Your task to perform on an android device: Show me productivity apps on the Play Store Image 0: 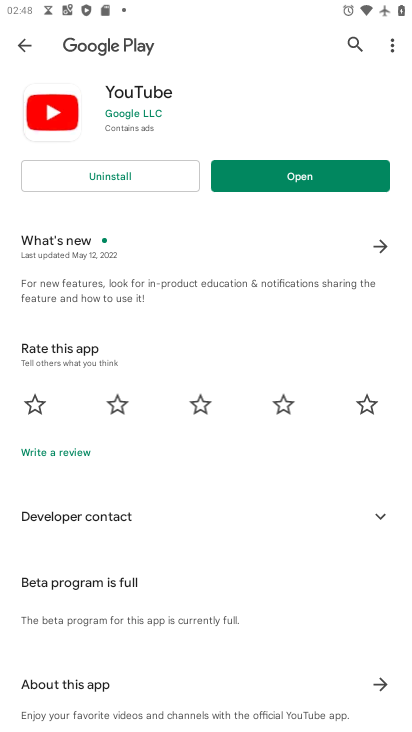
Step 0: press home button
Your task to perform on an android device: Show me productivity apps on the Play Store Image 1: 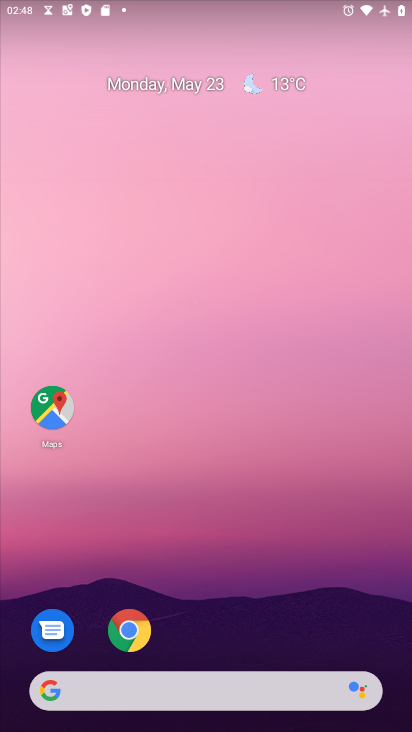
Step 1: drag from (297, 595) to (157, 41)
Your task to perform on an android device: Show me productivity apps on the Play Store Image 2: 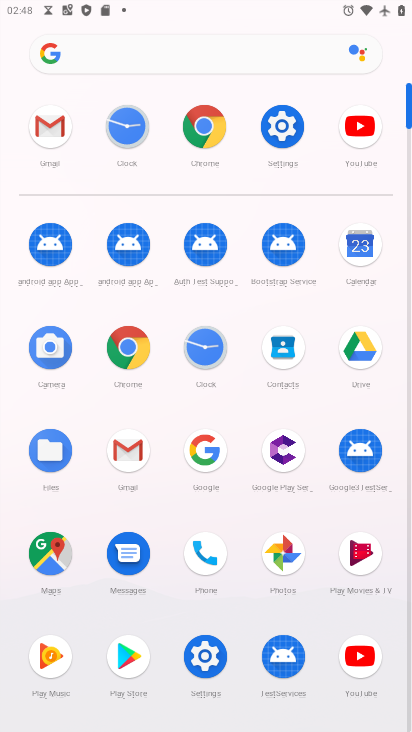
Step 2: click (128, 647)
Your task to perform on an android device: Show me productivity apps on the Play Store Image 3: 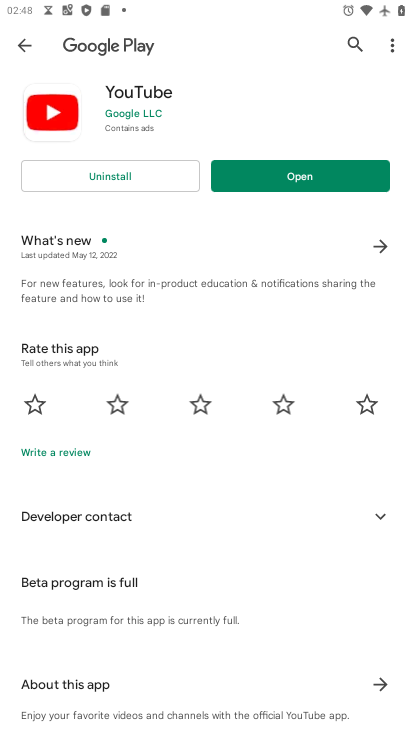
Step 3: click (22, 39)
Your task to perform on an android device: Show me productivity apps on the Play Store Image 4: 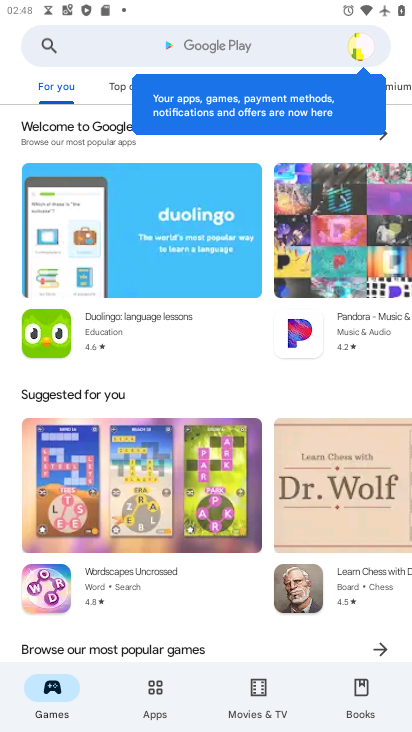
Step 4: click (138, 707)
Your task to perform on an android device: Show me productivity apps on the Play Store Image 5: 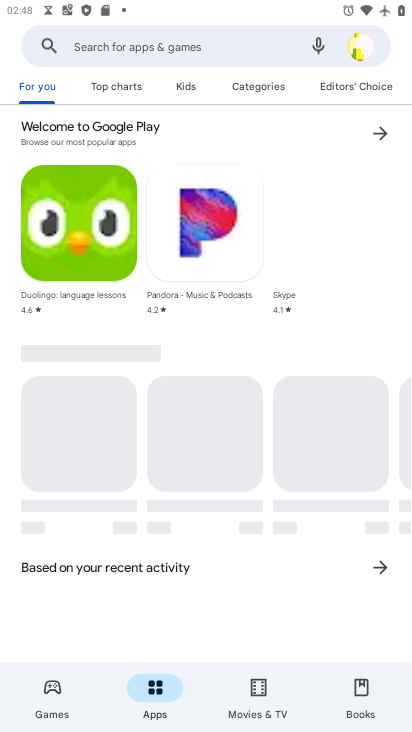
Step 5: click (170, 52)
Your task to perform on an android device: Show me productivity apps on the Play Store Image 6: 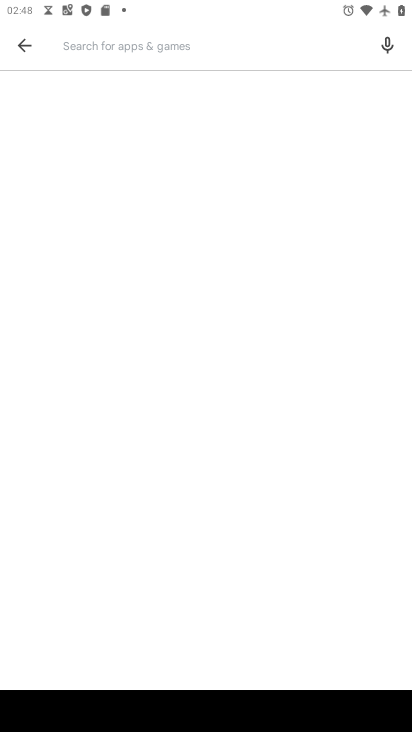
Step 6: type "productivity apps"
Your task to perform on an android device: Show me productivity apps on the Play Store Image 7: 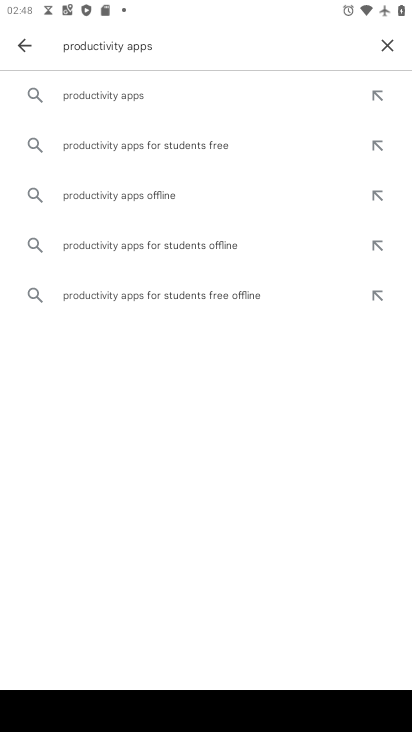
Step 7: click (146, 101)
Your task to perform on an android device: Show me productivity apps on the Play Store Image 8: 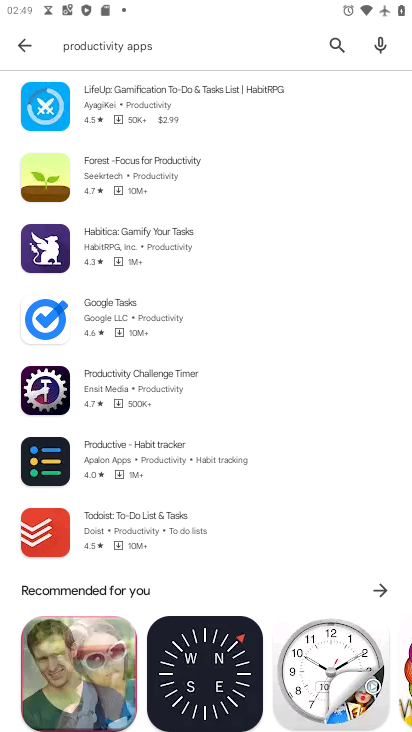
Step 8: task complete